Your task to perform on an android device: open sync settings in chrome Image 0: 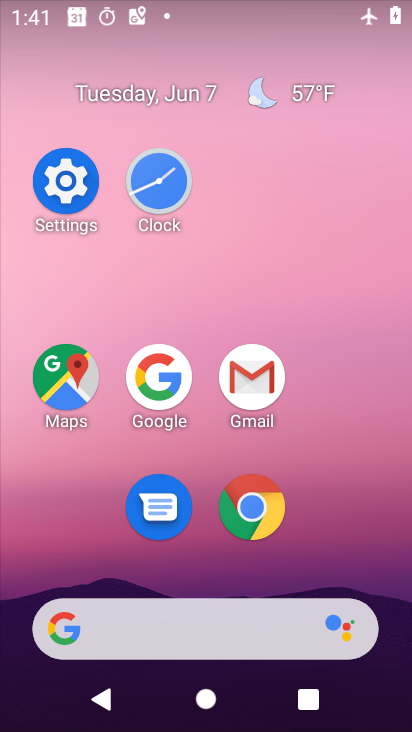
Step 0: click (267, 518)
Your task to perform on an android device: open sync settings in chrome Image 1: 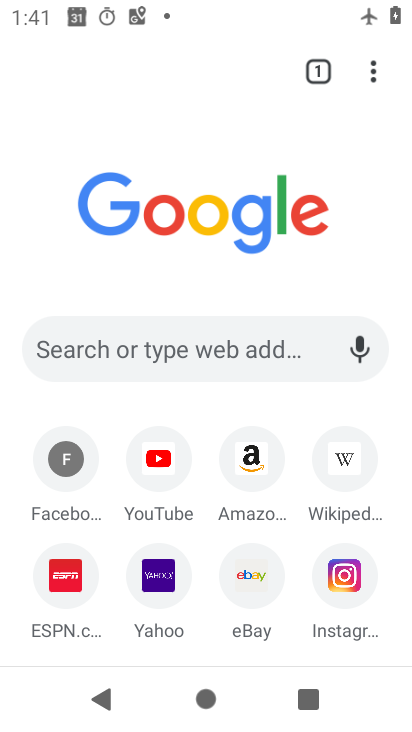
Step 1: click (375, 71)
Your task to perform on an android device: open sync settings in chrome Image 2: 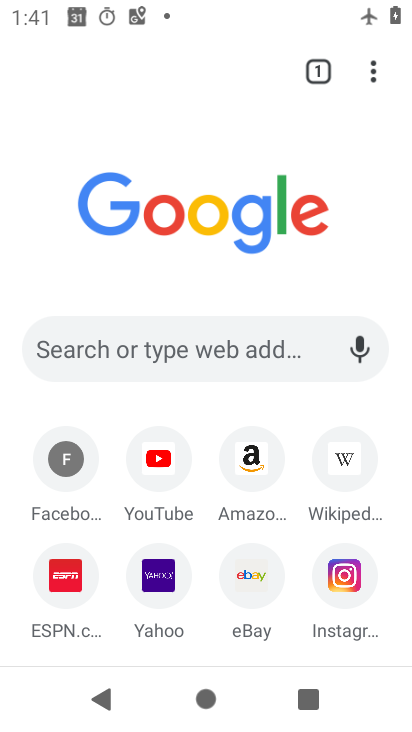
Step 2: click (372, 66)
Your task to perform on an android device: open sync settings in chrome Image 3: 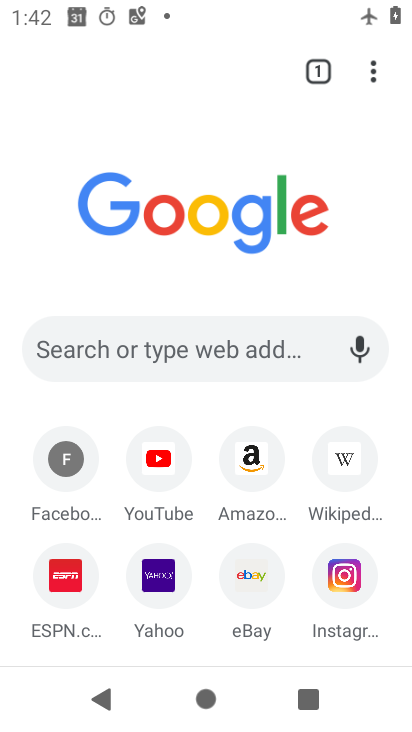
Step 3: click (367, 67)
Your task to perform on an android device: open sync settings in chrome Image 4: 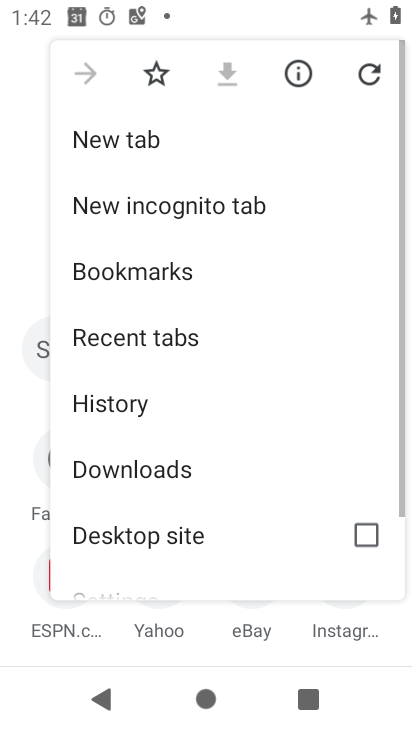
Step 4: drag from (218, 470) to (265, 118)
Your task to perform on an android device: open sync settings in chrome Image 5: 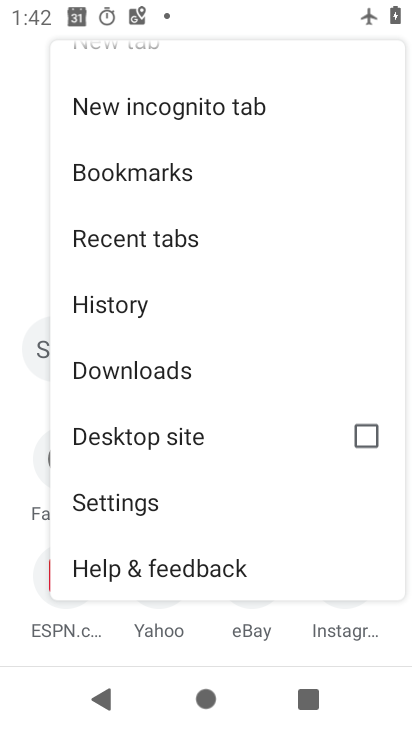
Step 5: click (166, 490)
Your task to perform on an android device: open sync settings in chrome Image 6: 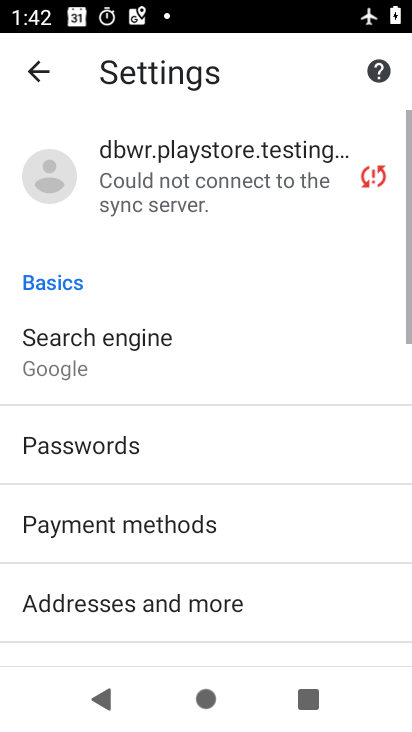
Step 6: drag from (166, 483) to (176, 146)
Your task to perform on an android device: open sync settings in chrome Image 7: 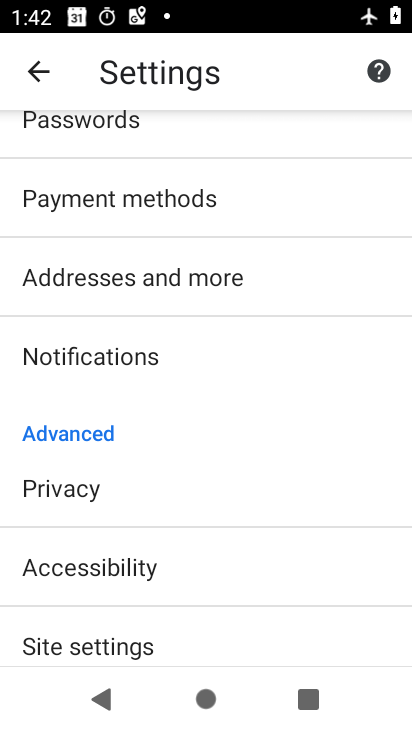
Step 7: drag from (164, 561) to (158, 249)
Your task to perform on an android device: open sync settings in chrome Image 8: 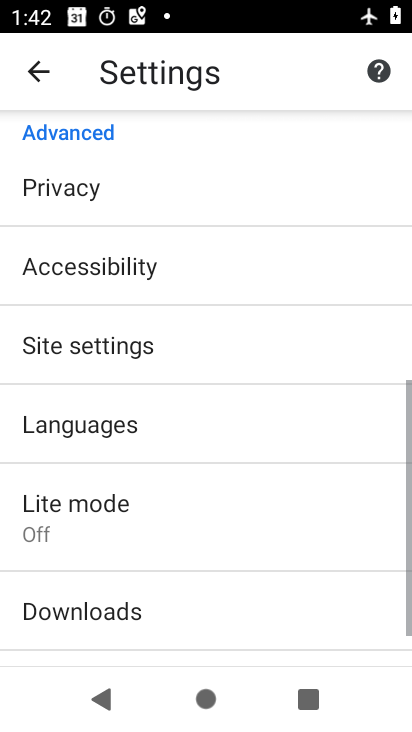
Step 8: click (148, 360)
Your task to perform on an android device: open sync settings in chrome Image 9: 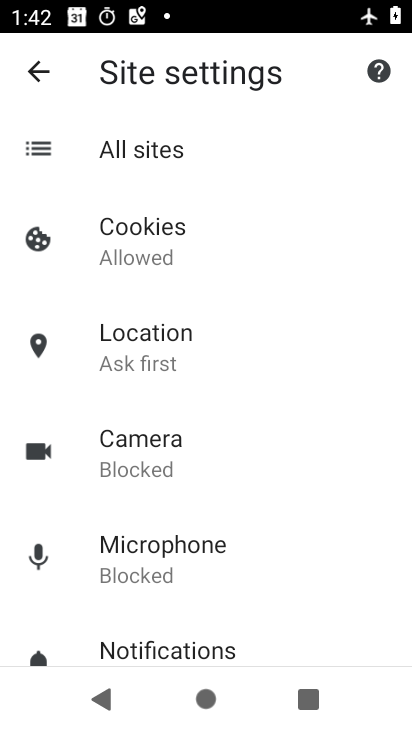
Step 9: drag from (195, 549) to (242, 213)
Your task to perform on an android device: open sync settings in chrome Image 10: 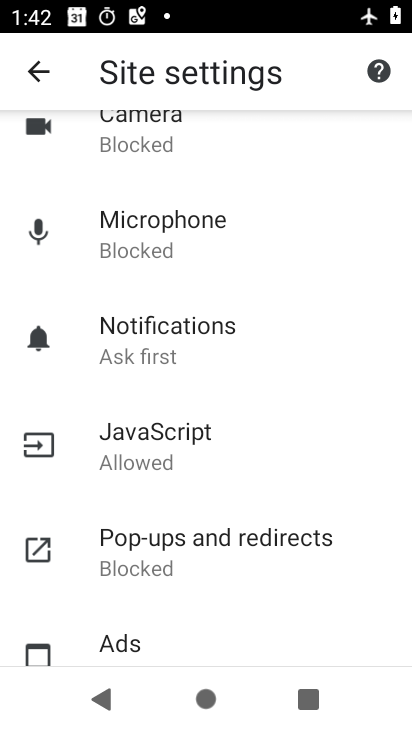
Step 10: drag from (220, 616) to (254, 259)
Your task to perform on an android device: open sync settings in chrome Image 11: 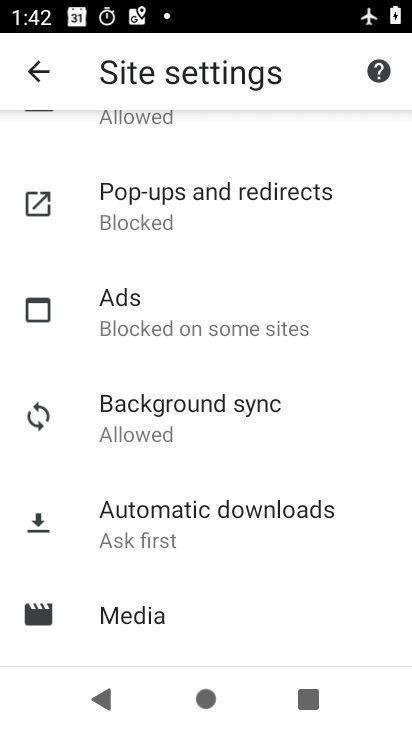
Step 11: drag from (201, 586) to (234, 284)
Your task to perform on an android device: open sync settings in chrome Image 12: 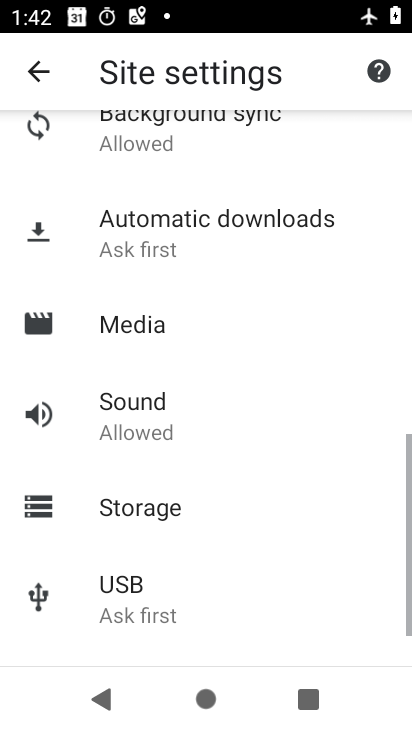
Step 12: drag from (189, 541) to (244, 251)
Your task to perform on an android device: open sync settings in chrome Image 13: 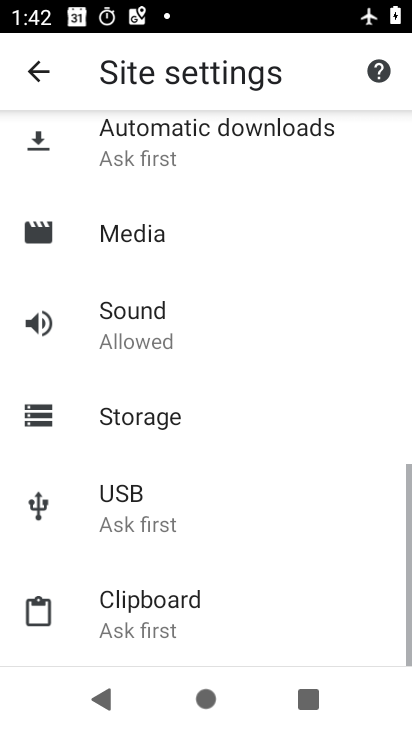
Step 13: drag from (226, 509) to (267, 252)
Your task to perform on an android device: open sync settings in chrome Image 14: 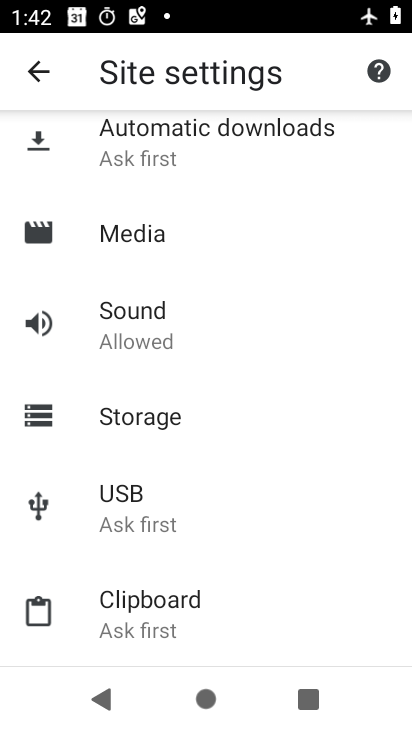
Step 14: drag from (300, 212) to (280, 566)
Your task to perform on an android device: open sync settings in chrome Image 15: 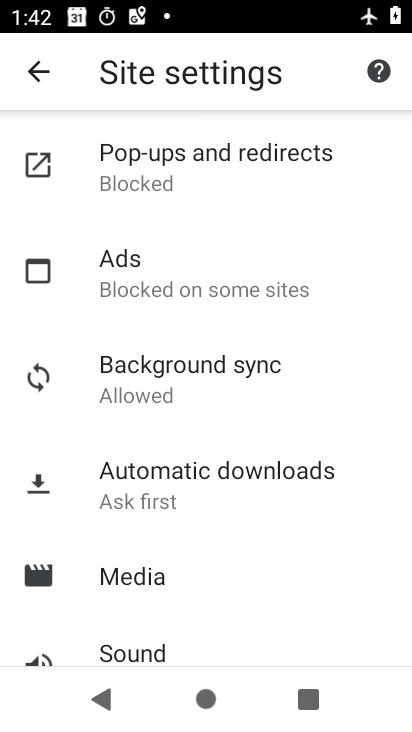
Step 15: click (225, 385)
Your task to perform on an android device: open sync settings in chrome Image 16: 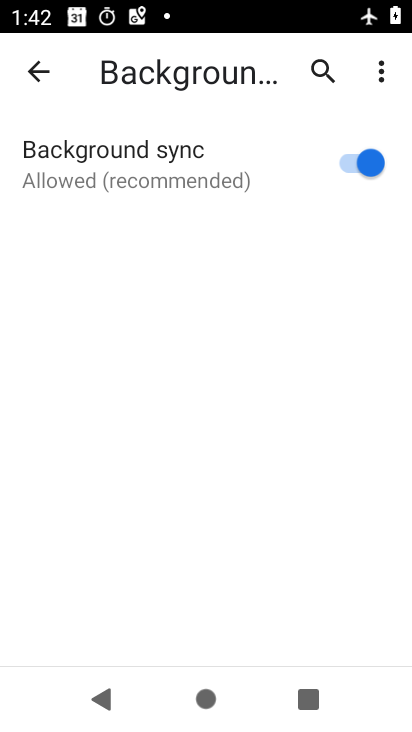
Step 16: task complete